Your task to perform on an android device: Open eBay Image 0: 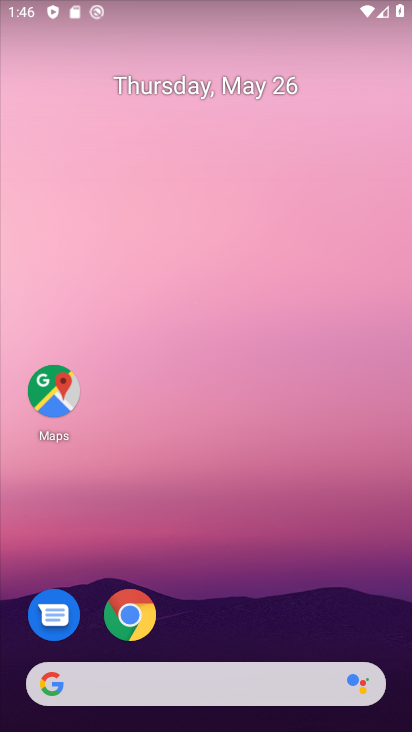
Step 0: press home button
Your task to perform on an android device: Open eBay Image 1: 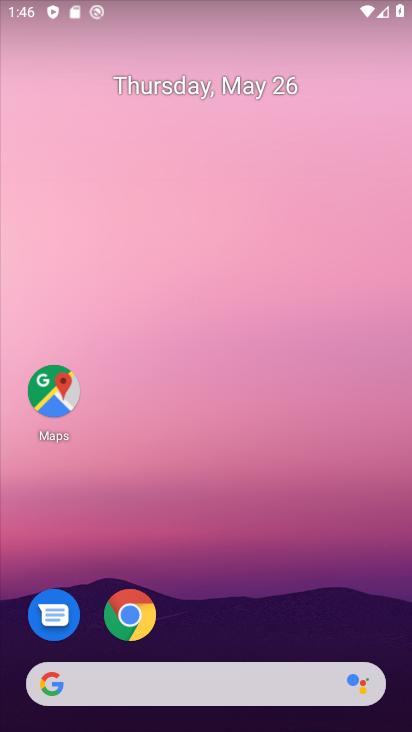
Step 1: click (127, 612)
Your task to perform on an android device: Open eBay Image 2: 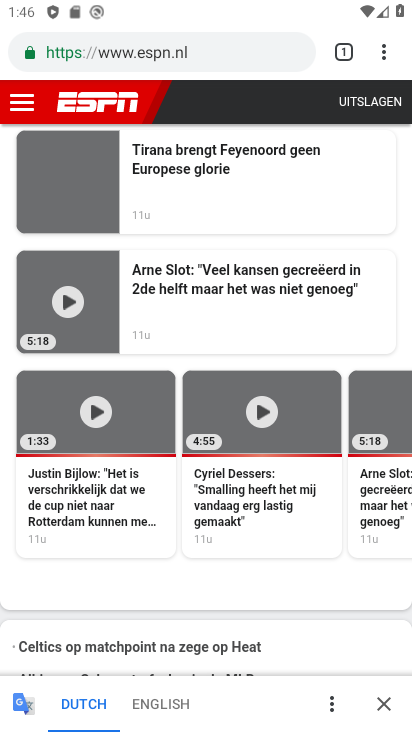
Step 2: click (343, 43)
Your task to perform on an android device: Open eBay Image 3: 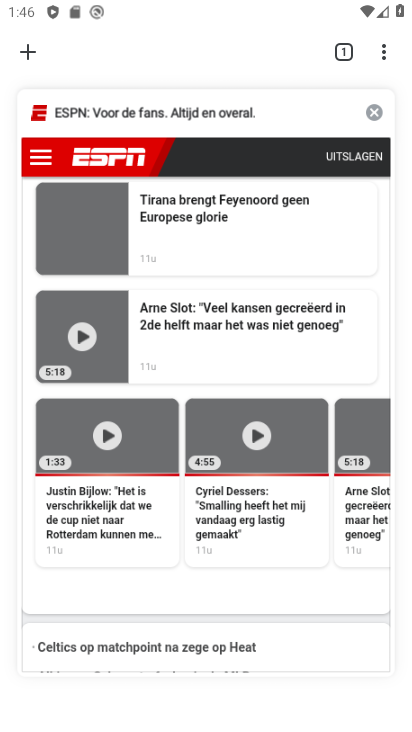
Step 3: click (372, 109)
Your task to perform on an android device: Open eBay Image 4: 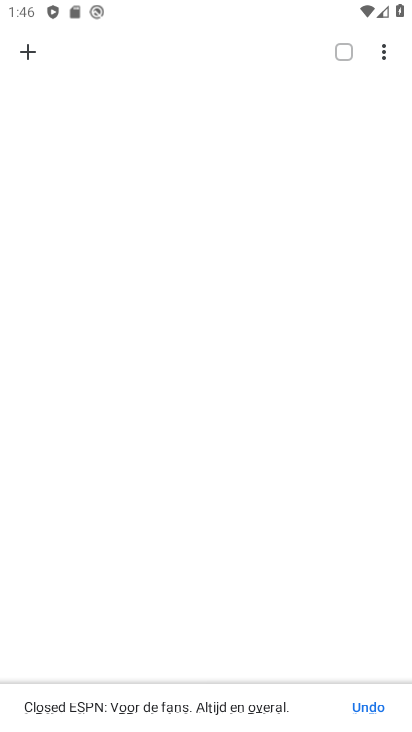
Step 4: click (34, 52)
Your task to perform on an android device: Open eBay Image 5: 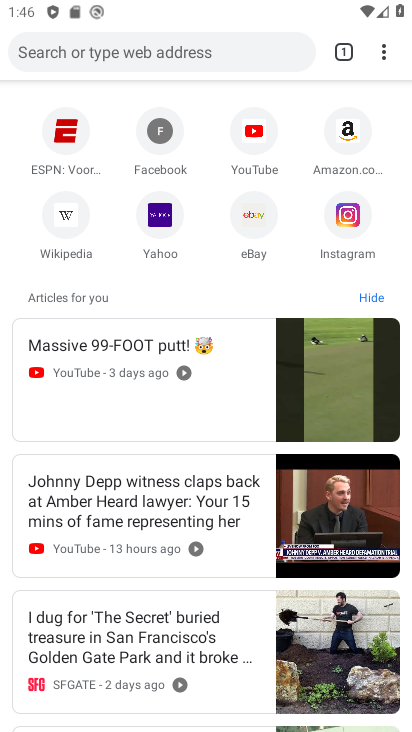
Step 5: click (249, 207)
Your task to perform on an android device: Open eBay Image 6: 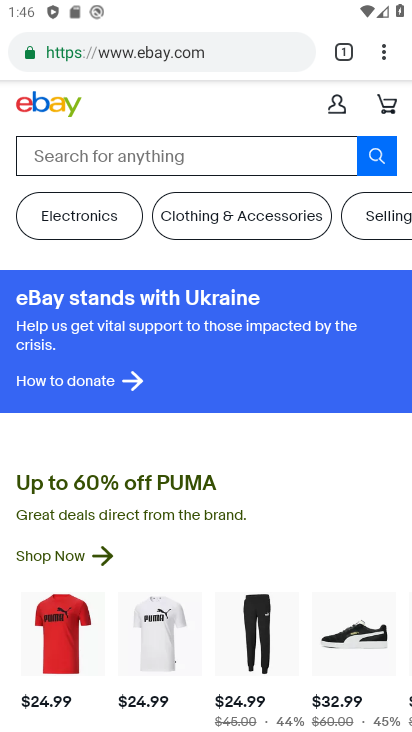
Step 6: task complete